Your task to perform on an android device: check the backup settings in the google photos Image 0: 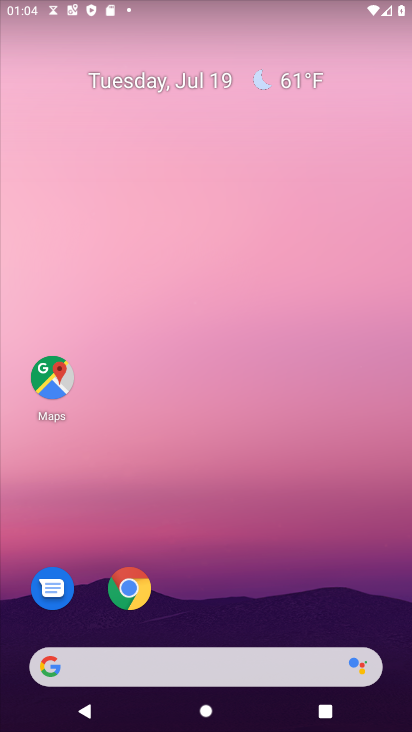
Step 0: press home button
Your task to perform on an android device: check the backup settings in the google photos Image 1: 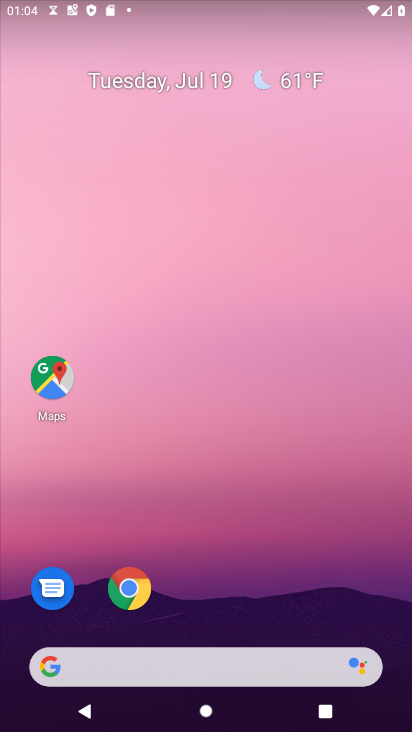
Step 1: drag from (284, 677) to (251, 257)
Your task to perform on an android device: check the backup settings in the google photos Image 2: 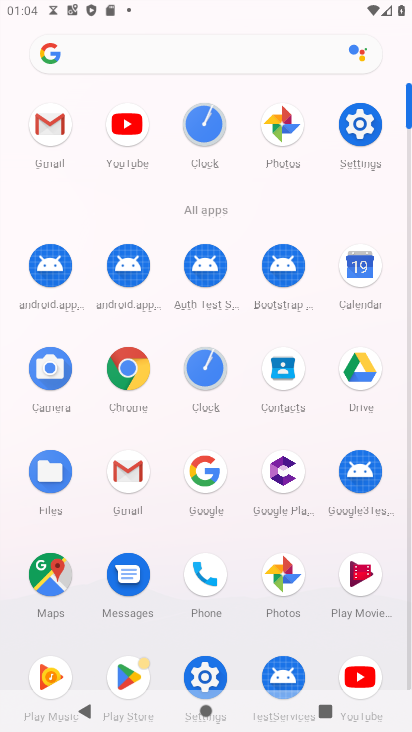
Step 2: click (286, 568)
Your task to perform on an android device: check the backup settings in the google photos Image 3: 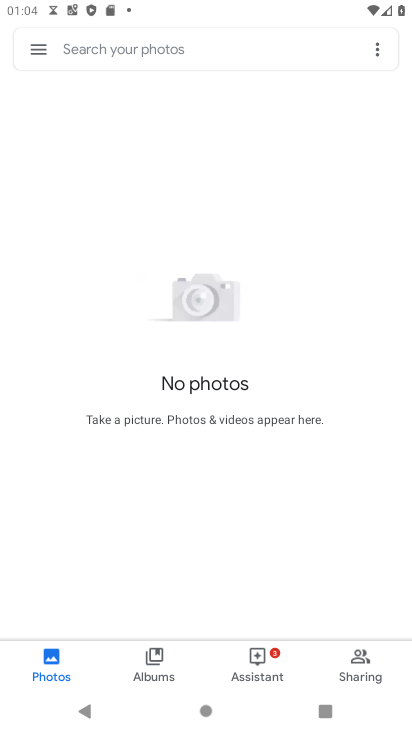
Step 3: click (33, 39)
Your task to perform on an android device: check the backup settings in the google photos Image 4: 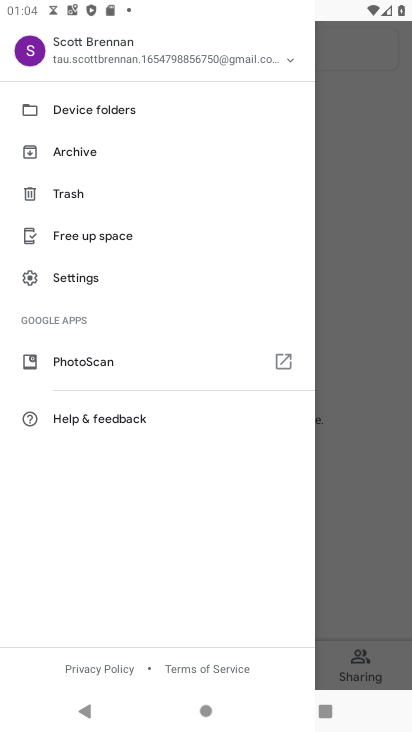
Step 4: click (84, 275)
Your task to perform on an android device: check the backup settings in the google photos Image 5: 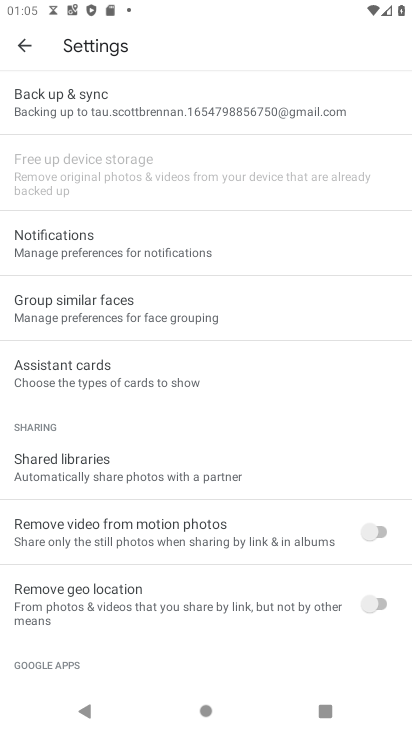
Step 5: click (165, 84)
Your task to perform on an android device: check the backup settings in the google photos Image 6: 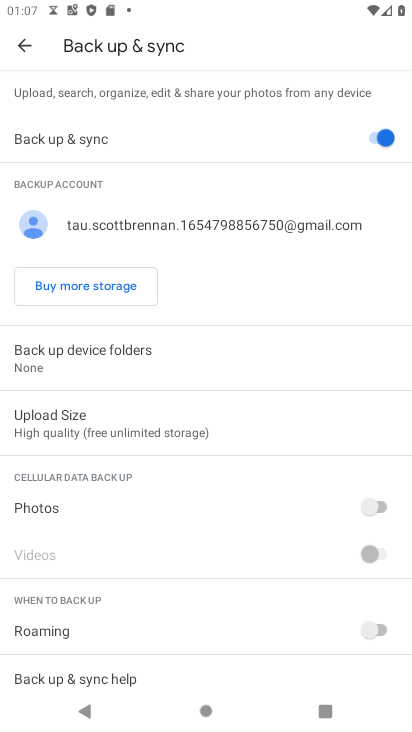
Step 6: task complete